Your task to perform on an android device: turn off airplane mode Image 0: 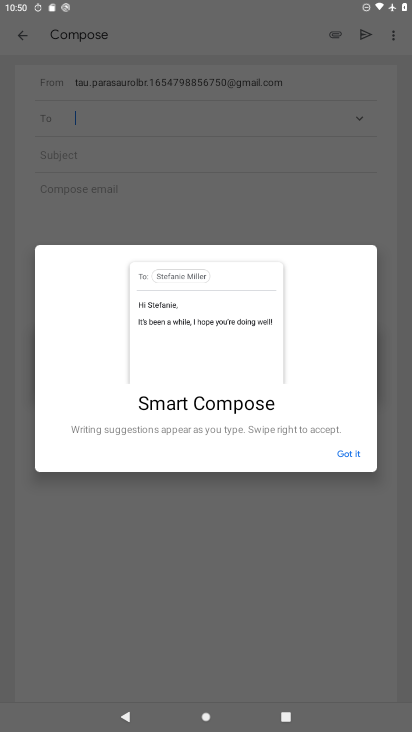
Step 0: press home button
Your task to perform on an android device: turn off airplane mode Image 1: 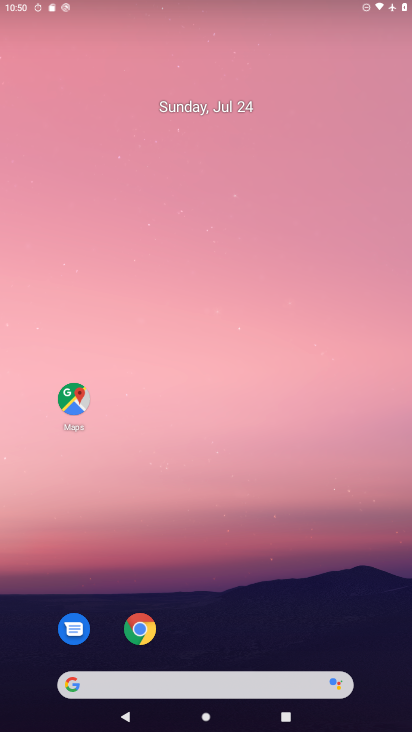
Step 1: drag from (189, 661) to (219, 135)
Your task to perform on an android device: turn off airplane mode Image 2: 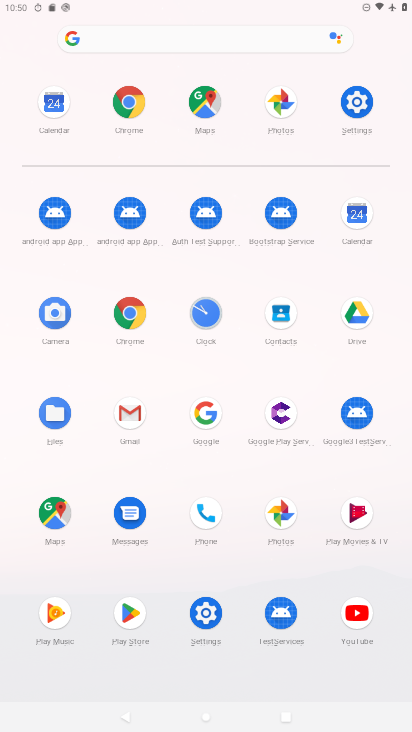
Step 2: click (358, 122)
Your task to perform on an android device: turn off airplane mode Image 3: 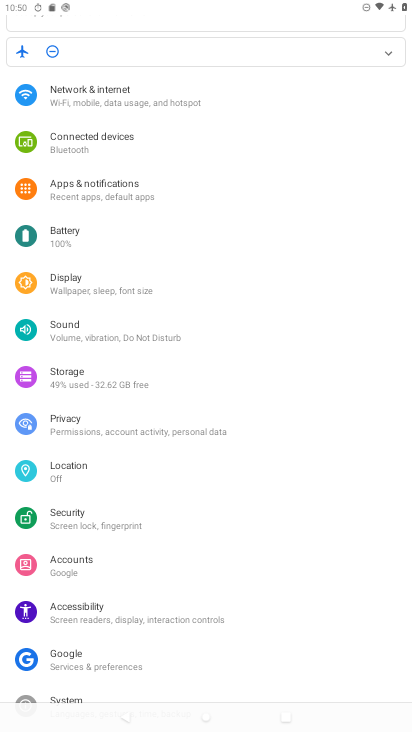
Step 3: click (137, 101)
Your task to perform on an android device: turn off airplane mode Image 4: 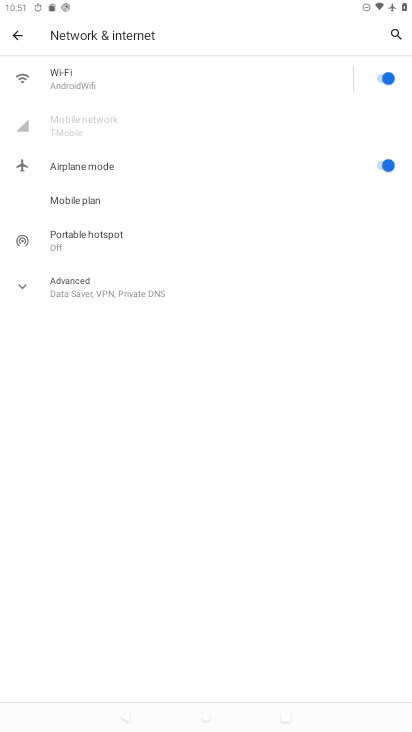
Step 4: click (369, 167)
Your task to perform on an android device: turn off airplane mode Image 5: 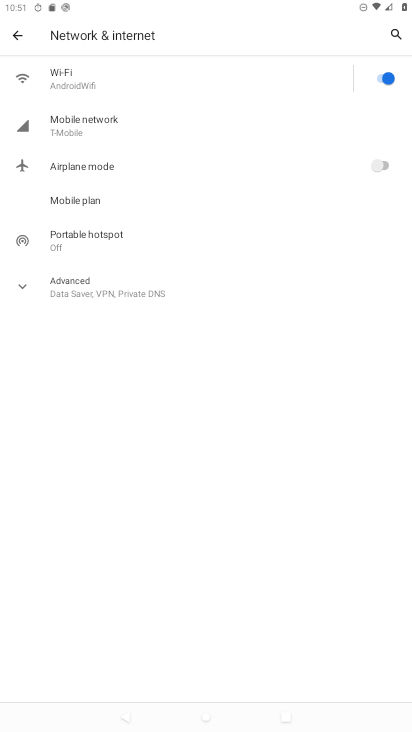
Step 5: task complete